Your task to perform on an android device: open app "Google Docs" Image 0: 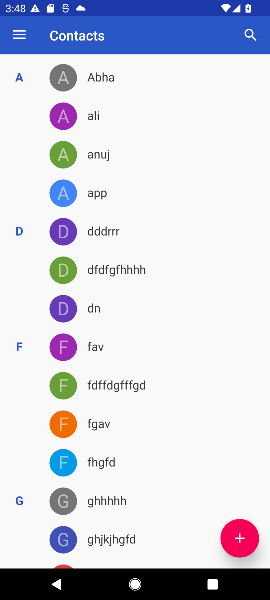
Step 0: press home button
Your task to perform on an android device: open app "Google Docs" Image 1: 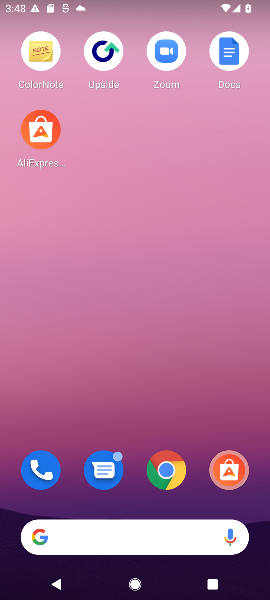
Step 1: drag from (137, 532) to (182, 142)
Your task to perform on an android device: open app "Google Docs" Image 2: 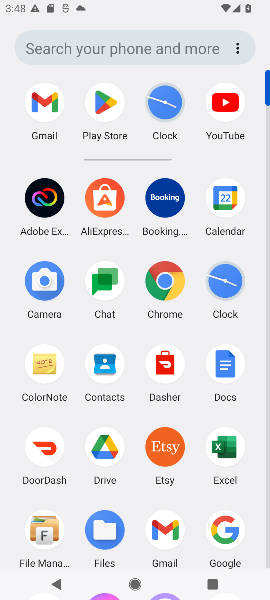
Step 2: click (100, 102)
Your task to perform on an android device: open app "Google Docs" Image 3: 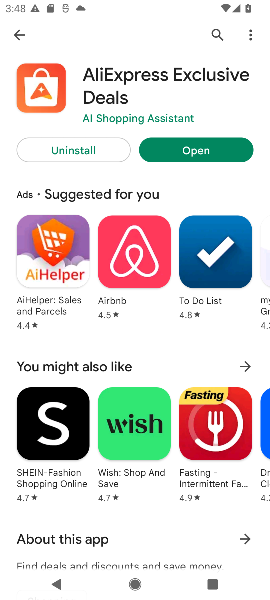
Step 3: click (19, 34)
Your task to perform on an android device: open app "Google Docs" Image 4: 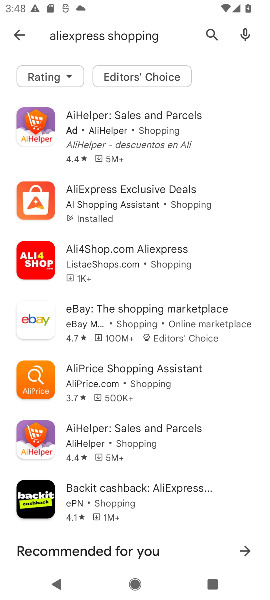
Step 4: click (22, 36)
Your task to perform on an android device: open app "Google Docs" Image 5: 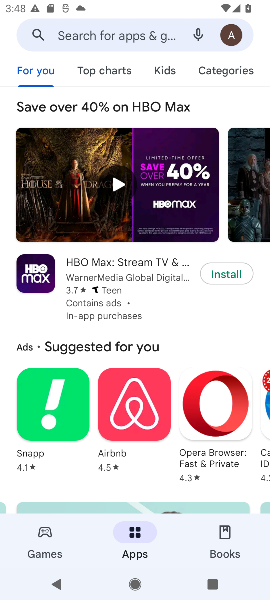
Step 5: click (113, 31)
Your task to perform on an android device: open app "Google Docs" Image 6: 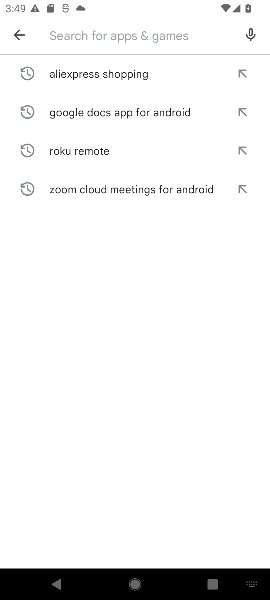
Step 6: type "Google Docs "
Your task to perform on an android device: open app "Google Docs" Image 7: 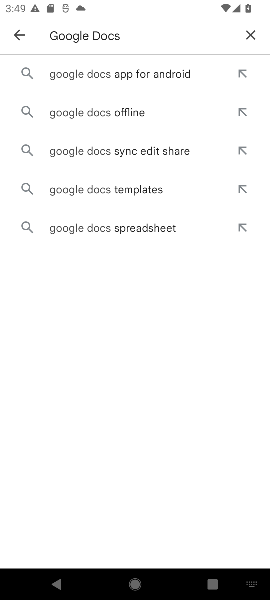
Step 7: click (150, 79)
Your task to perform on an android device: open app "Google Docs" Image 8: 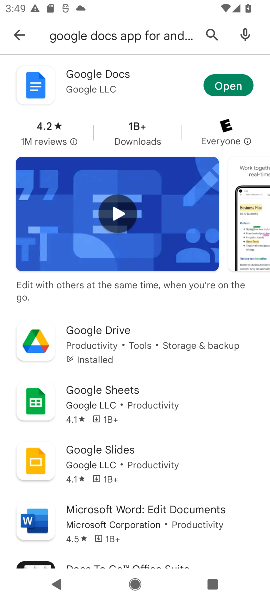
Step 8: click (234, 88)
Your task to perform on an android device: open app "Google Docs" Image 9: 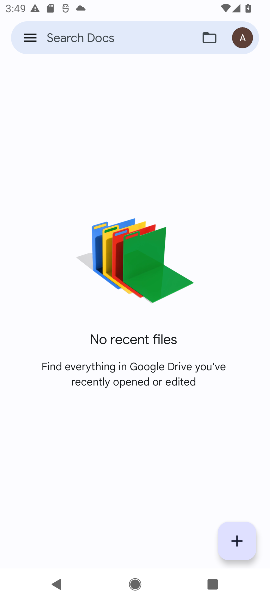
Step 9: task complete